Your task to perform on an android device: open a bookmark in the chrome app Image 0: 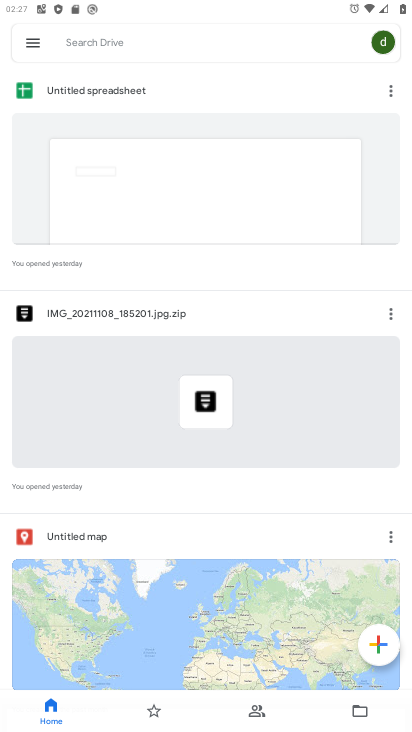
Step 0: press home button
Your task to perform on an android device: open a bookmark in the chrome app Image 1: 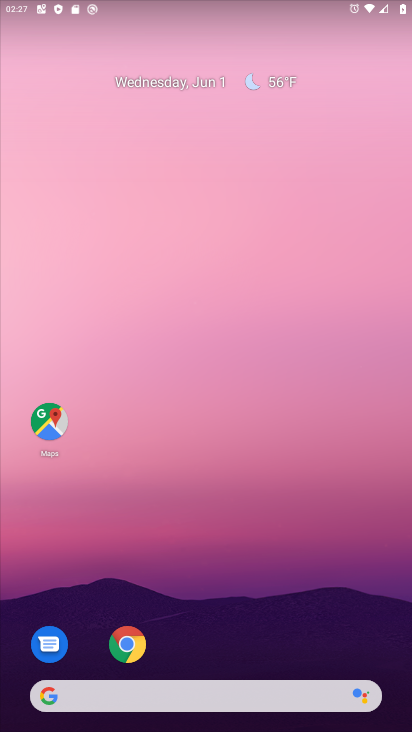
Step 1: drag from (227, 676) to (227, 268)
Your task to perform on an android device: open a bookmark in the chrome app Image 2: 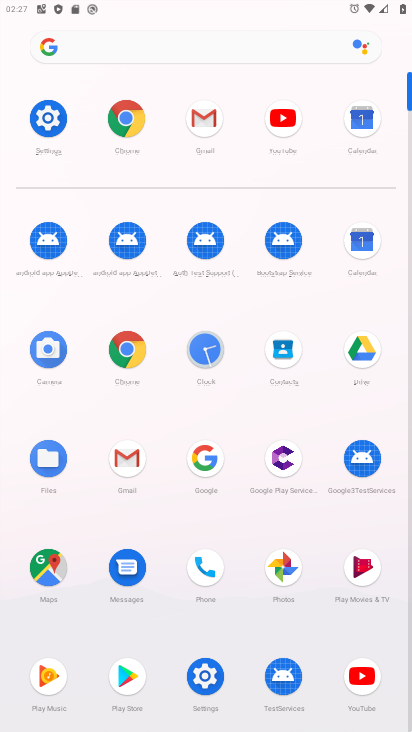
Step 2: click (128, 146)
Your task to perform on an android device: open a bookmark in the chrome app Image 3: 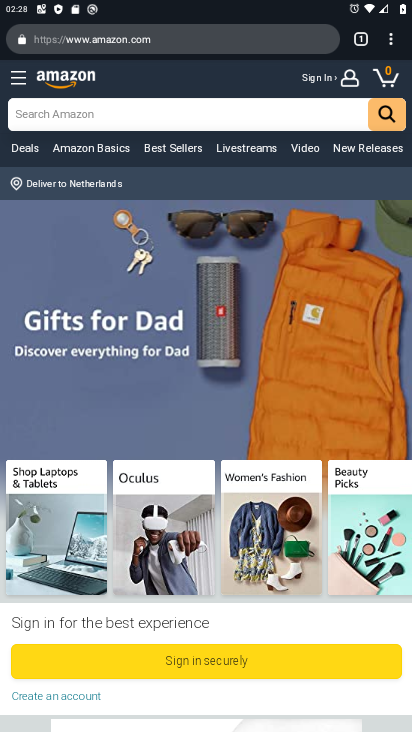
Step 3: task complete